Your task to perform on an android device: delete location history Image 0: 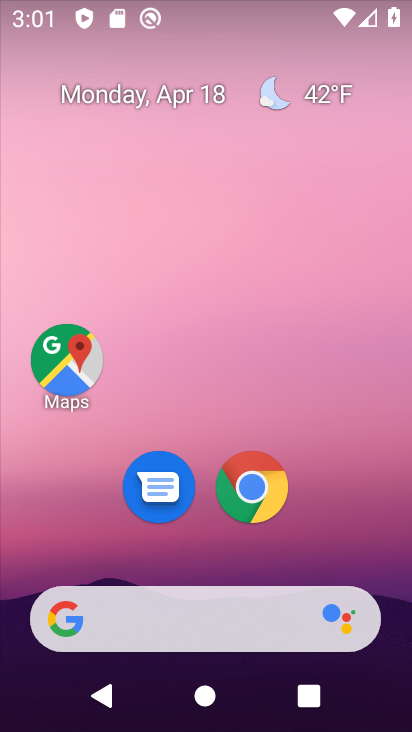
Step 0: drag from (208, 540) to (211, 111)
Your task to perform on an android device: delete location history Image 1: 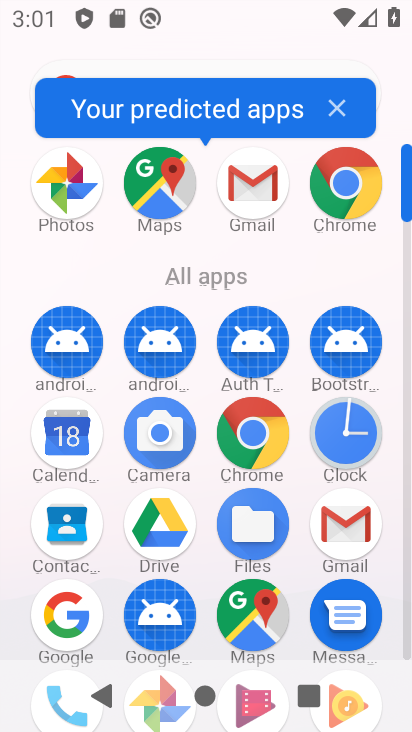
Step 1: drag from (213, 567) to (203, 179)
Your task to perform on an android device: delete location history Image 2: 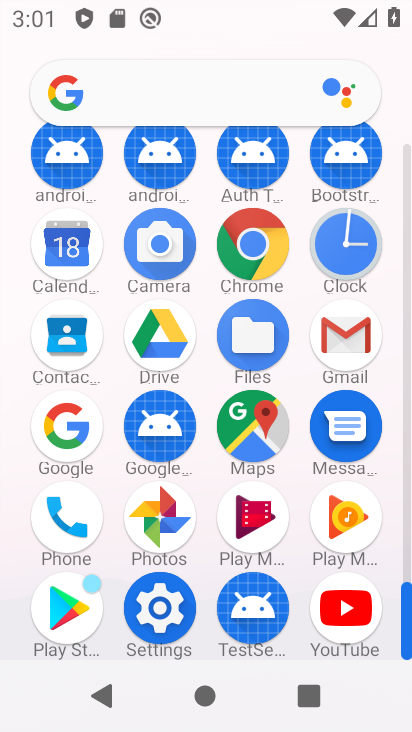
Step 2: click (166, 620)
Your task to perform on an android device: delete location history Image 3: 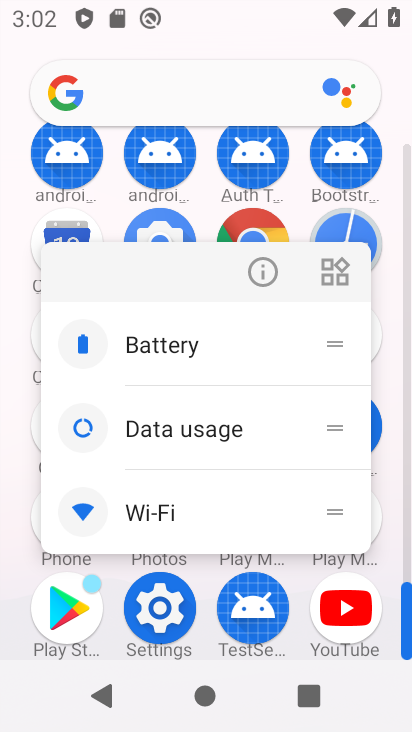
Step 3: click (165, 604)
Your task to perform on an android device: delete location history Image 4: 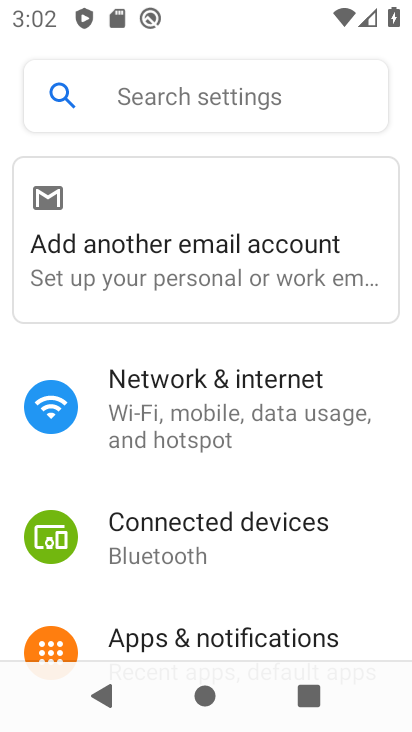
Step 4: drag from (264, 615) to (208, 236)
Your task to perform on an android device: delete location history Image 5: 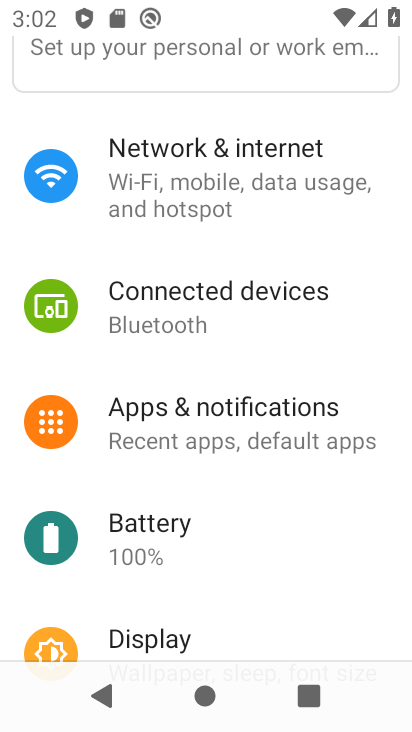
Step 5: drag from (264, 582) to (248, 184)
Your task to perform on an android device: delete location history Image 6: 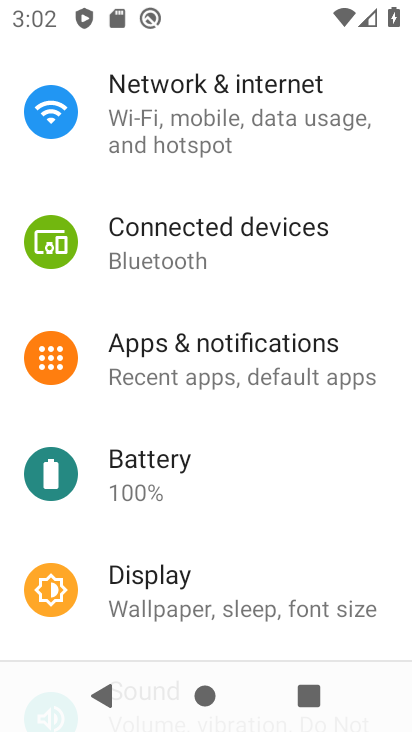
Step 6: drag from (255, 554) to (240, 207)
Your task to perform on an android device: delete location history Image 7: 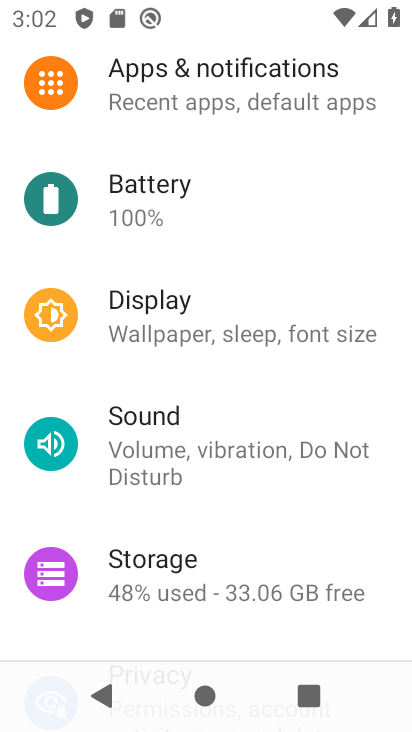
Step 7: drag from (279, 579) to (275, 187)
Your task to perform on an android device: delete location history Image 8: 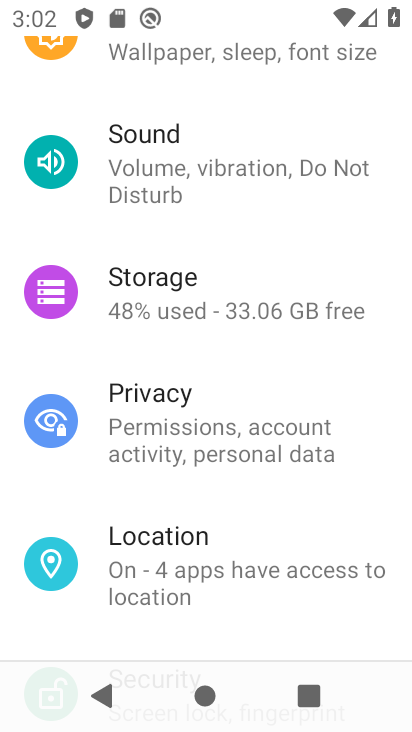
Step 8: click (212, 575)
Your task to perform on an android device: delete location history Image 9: 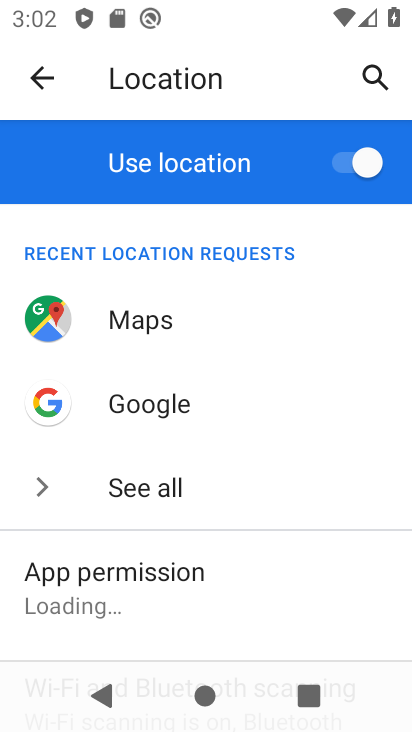
Step 9: drag from (258, 548) to (246, 248)
Your task to perform on an android device: delete location history Image 10: 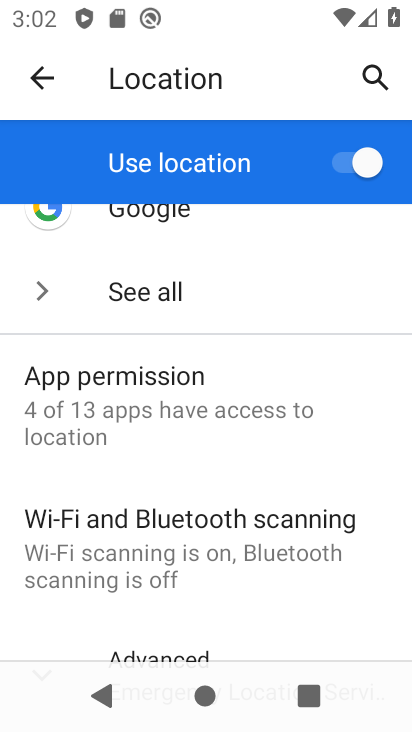
Step 10: drag from (201, 430) to (187, 313)
Your task to perform on an android device: delete location history Image 11: 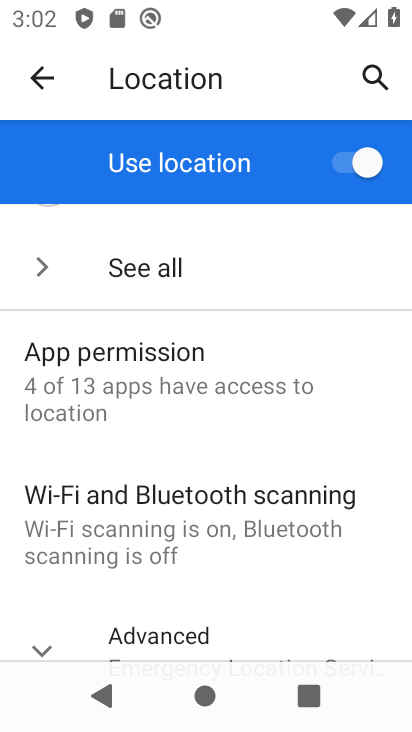
Step 11: click (232, 626)
Your task to perform on an android device: delete location history Image 12: 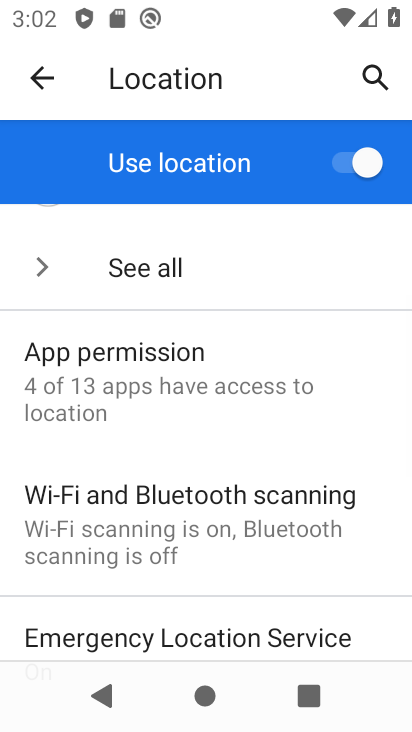
Step 12: drag from (237, 605) to (223, 242)
Your task to perform on an android device: delete location history Image 13: 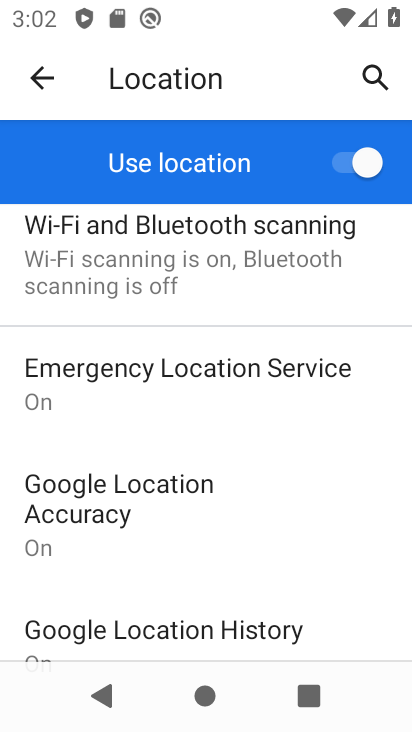
Step 13: click (259, 622)
Your task to perform on an android device: delete location history Image 14: 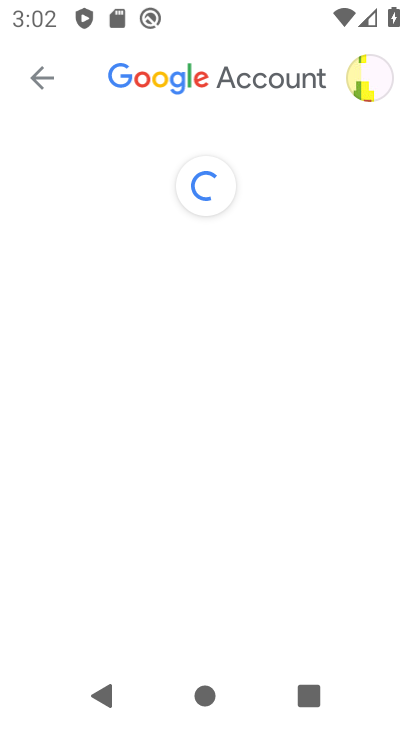
Step 14: drag from (230, 553) to (206, 231)
Your task to perform on an android device: delete location history Image 15: 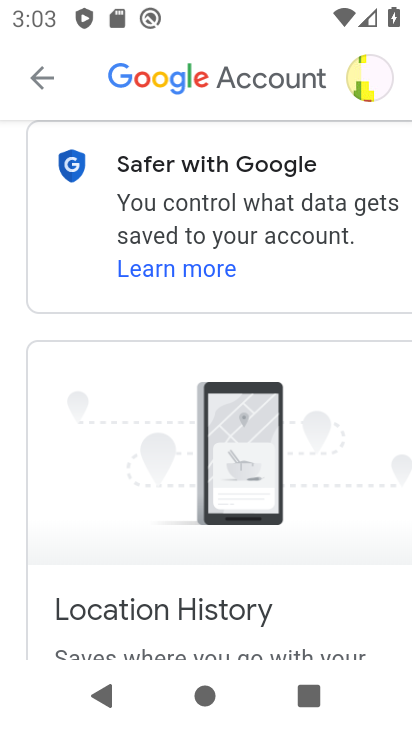
Step 15: drag from (209, 500) to (194, 207)
Your task to perform on an android device: delete location history Image 16: 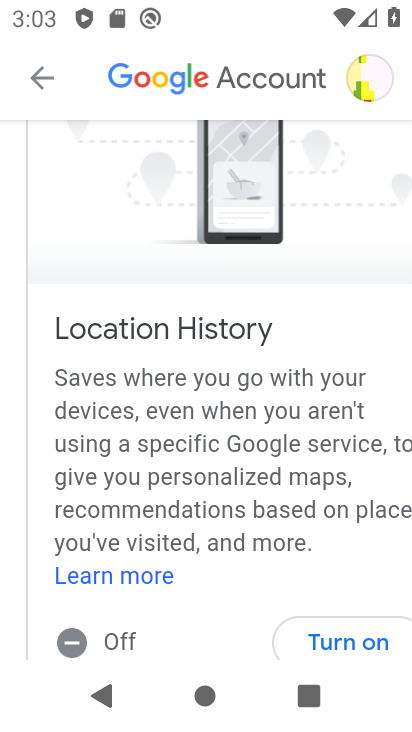
Step 16: drag from (208, 484) to (195, 212)
Your task to perform on an android device: delete location history Image 17: 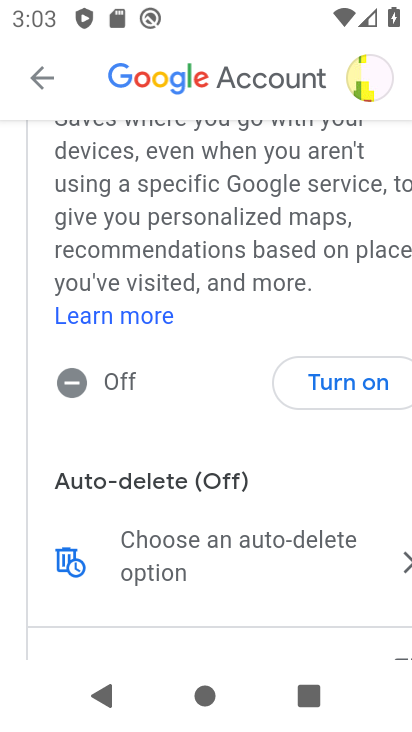
Step 17: click (69, 563)
Your task to perform on an android device: delete location history Image 18: 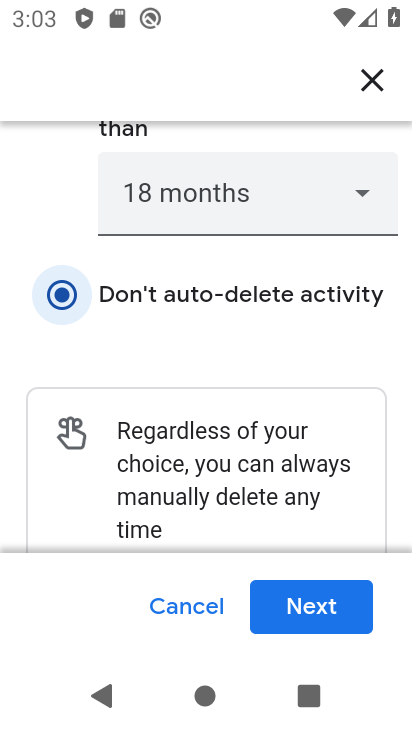
Step 18: click (299, 593)
Your task to perform on an android device: delete location history Image 19: 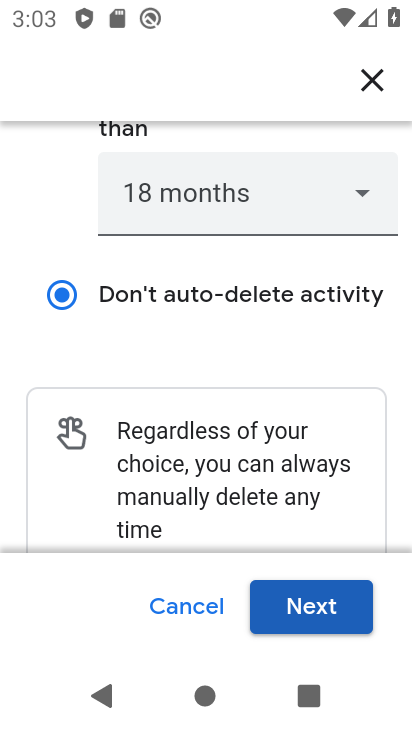
Step 19: click (326, 608)
Your task to perform on an android device: delete location history Image 20: 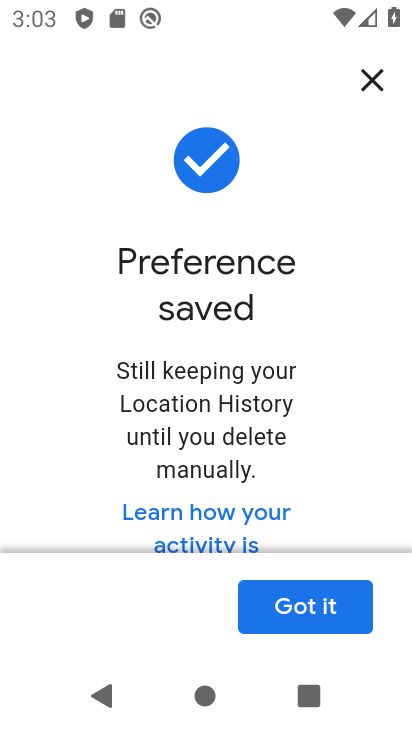
Step 20: click (317, 599)
Your task to perform on an android device: delete location history Image 21: 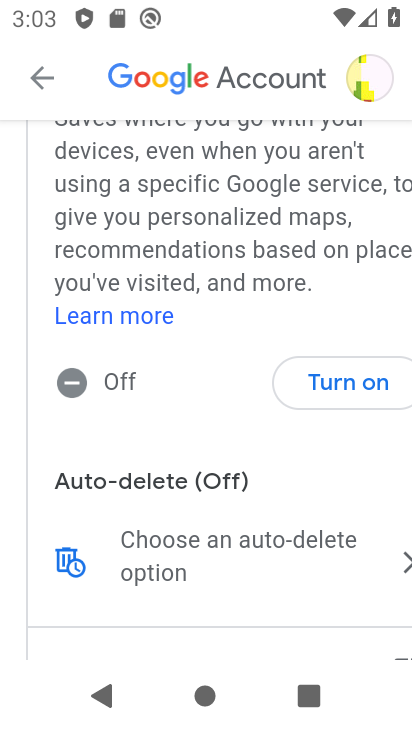
Step 21: task complete